Your task to perform on an android device: Open eBay Image 0: 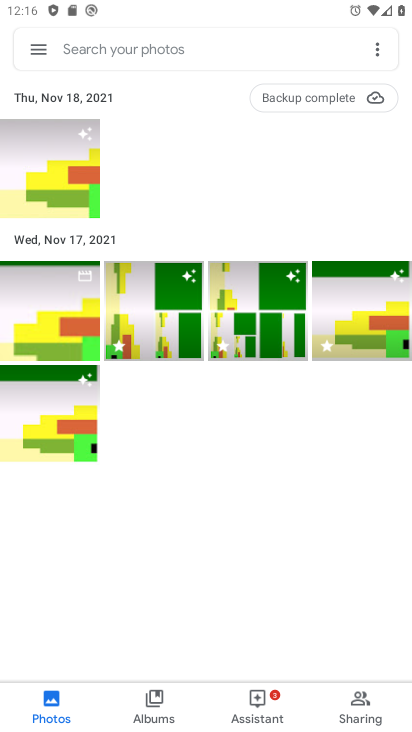
Step 0: press home button
Your task to perform on an android device: Open eBay Image 1: 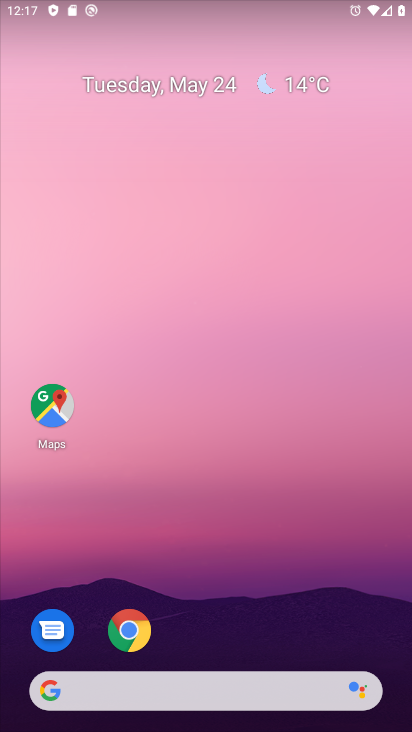
Step 1: click (141, 619)
Your task to perform on an android device: Open eBay Image 2: 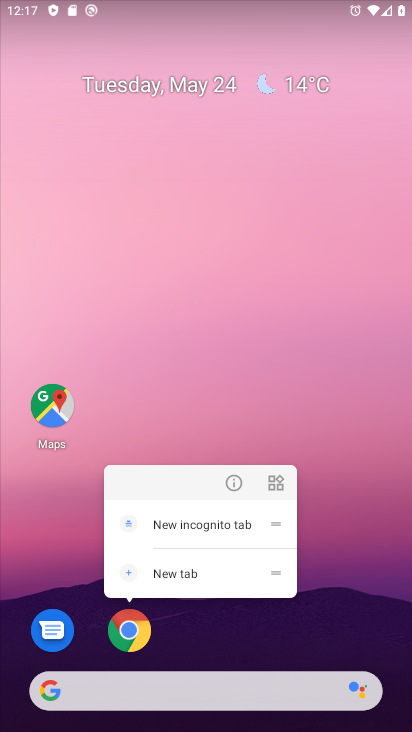
Step 2: click (136, 637)
Your task to perform on an android device: Open eBay Image 3: 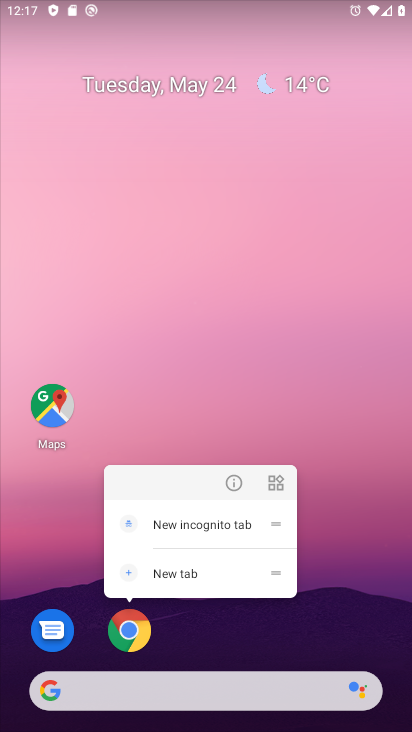
Step 3: click (135, 635)
Your task to perform on an android device: Open eBay Image 4: 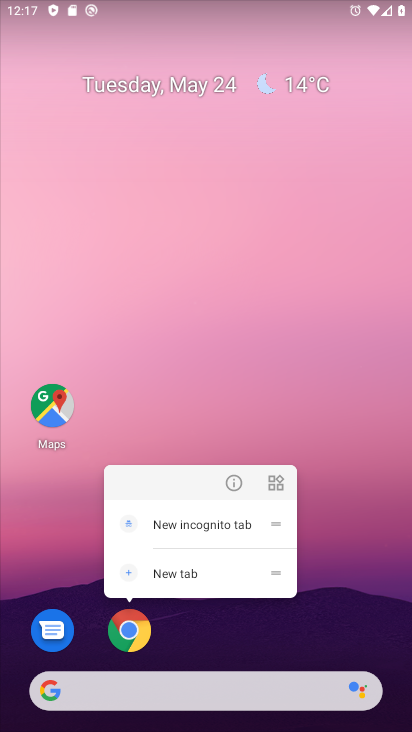
Step 4: drag from (371, 519) to (298, 98)
Your task to perform on an android device: Open eBay Image 5: 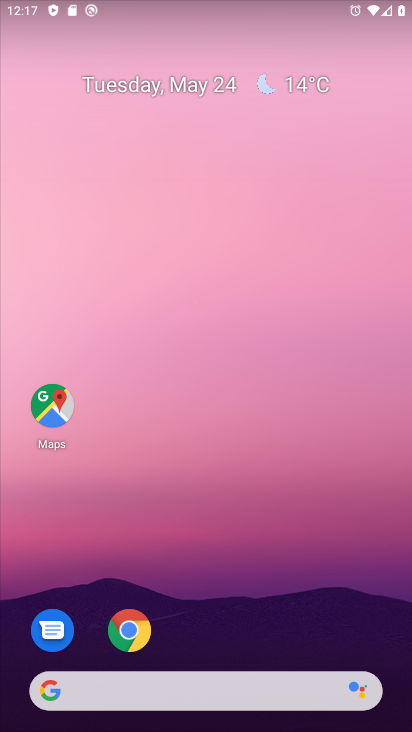
Step 5: drag from (300, 620) to (246, 88)
Your task to perform on an android device: Open eBay Image 6: 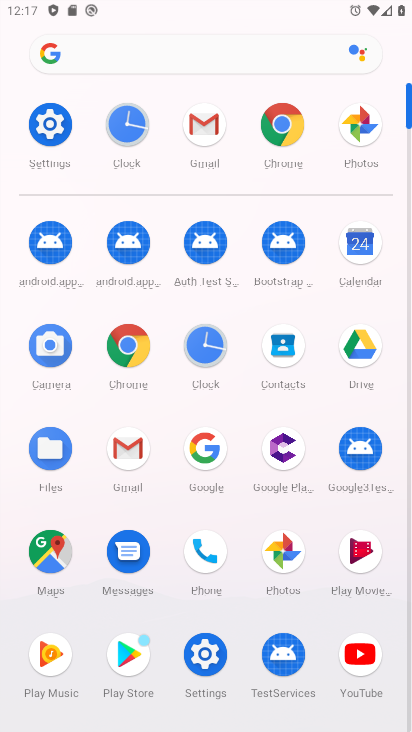
Step 6: click (119, 371)
Your task to perform on an android device: Open eBay Image 7: 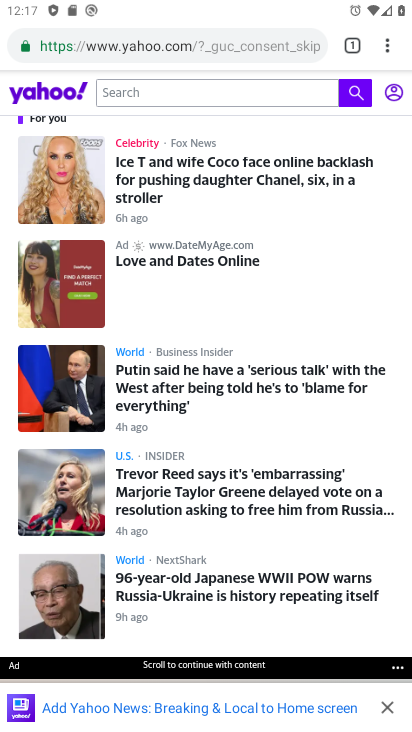
Step 7: click (220, 41)
Your task to perform on an android device: Open eBay Image 8: 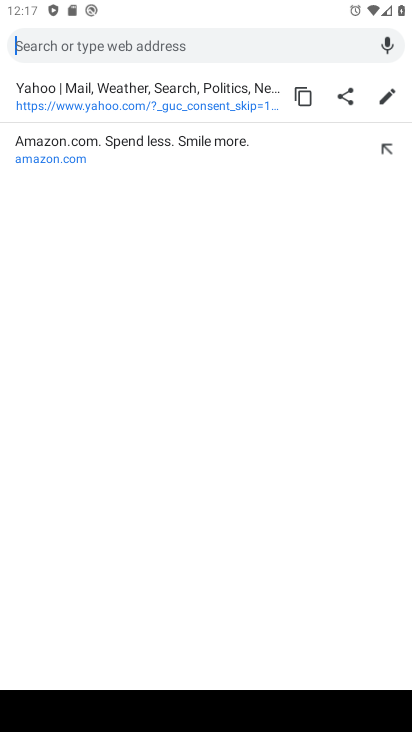
Step 8: type "ebay"
Your task to perform on an android device: Open eBay Image 9: 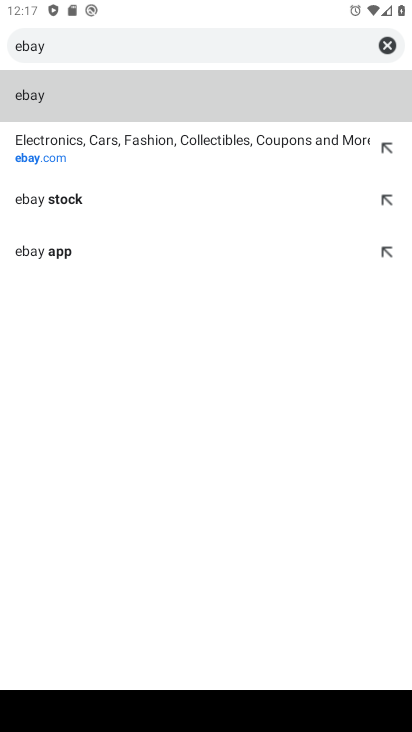
Step 9: click (163, 95)
Your task to perform on an android device: Open eBay Image 10: 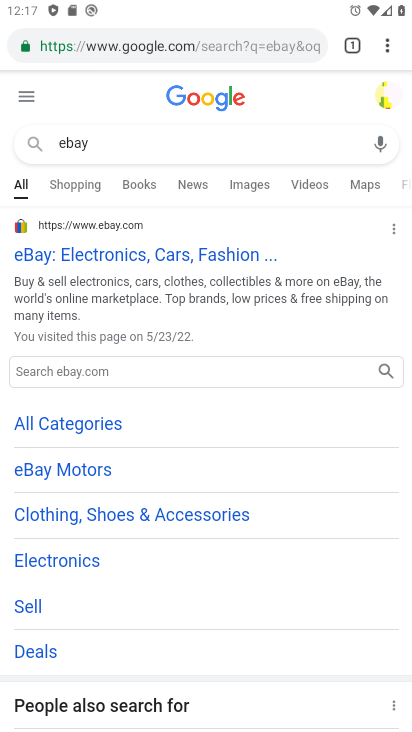
Step 10: click (206, 255)
Your task to perform on an android device: Open eBay Image 11: 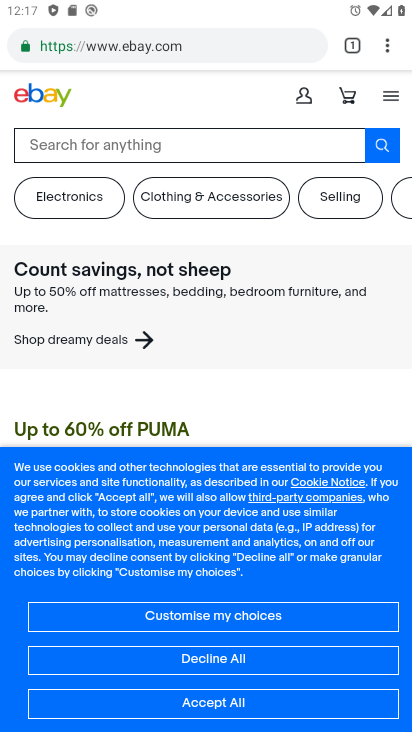
Step 11: task complete